Your task to perform on an android device: Open the map Image 0: 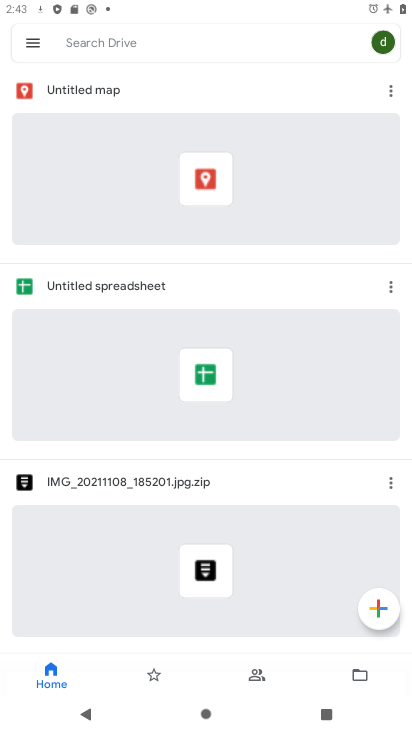
Step 0: press home button
Your task to perform on an android device: Open the map Image 1: 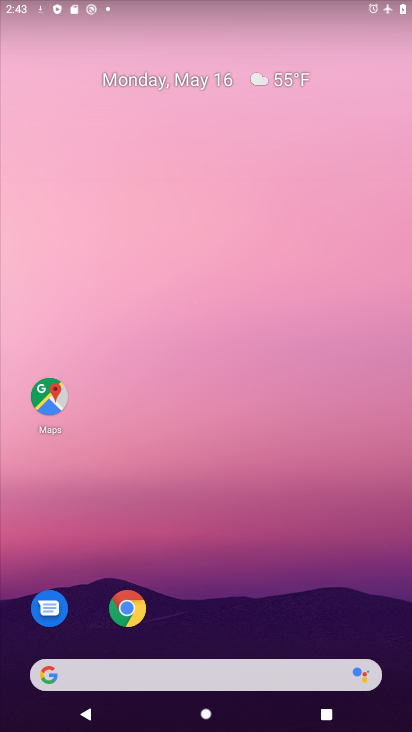
Step 1: click (62, 399)
Your task to perform on an android device: Open the map Image 2: 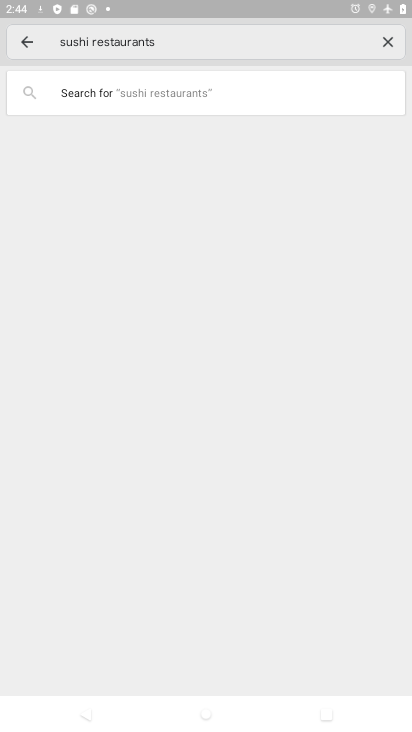
Step 2: click (388, 34)
Your task to perform on an android device: Open the map Image 3: 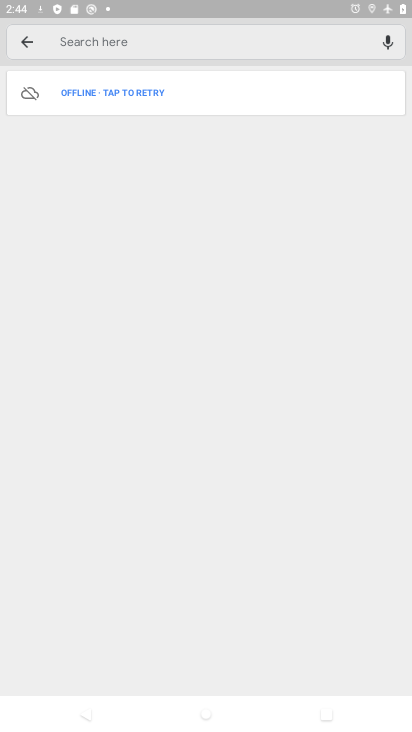
Step 3: click (24, 44)
Your task to perform on an android device: Open the map Image 4: 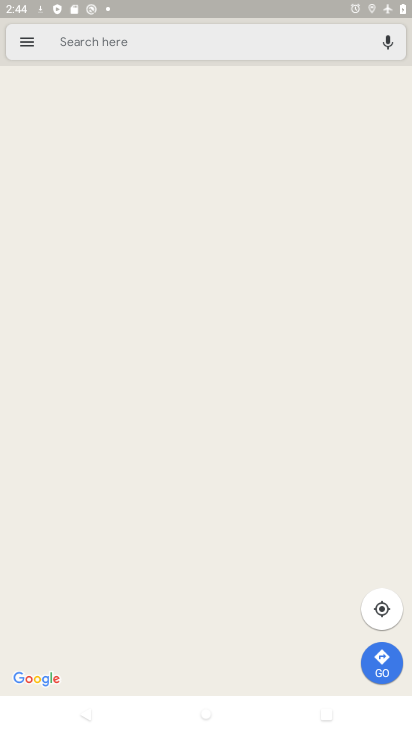
Step 4: task complete